Your task to perform on an android device: Do I have any events tomorrow? Image 0: 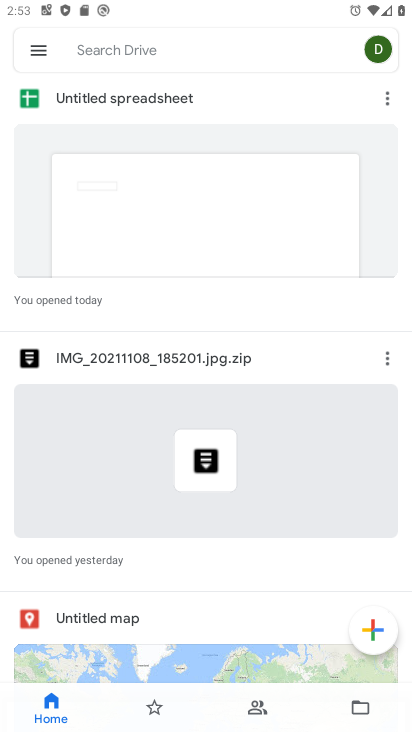
Step 0: press home button
Your task to perform on an android device: Do I have any events tomorrow? Image 1: 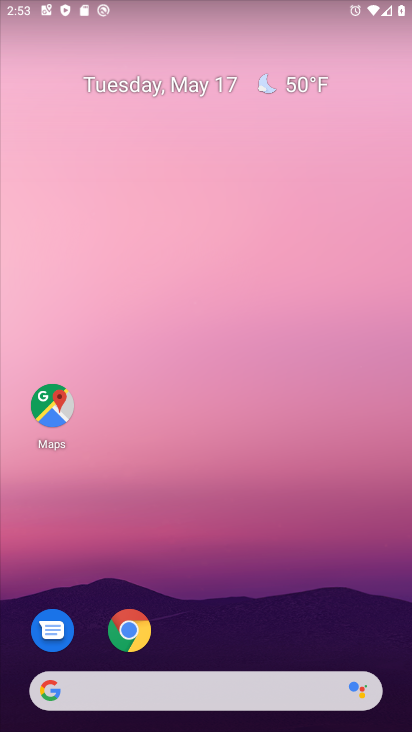
Step 1: drag from (219, 675) to (232, 259)
Your task to perform on an android device: Do I have any events tomorrow? Image 2: 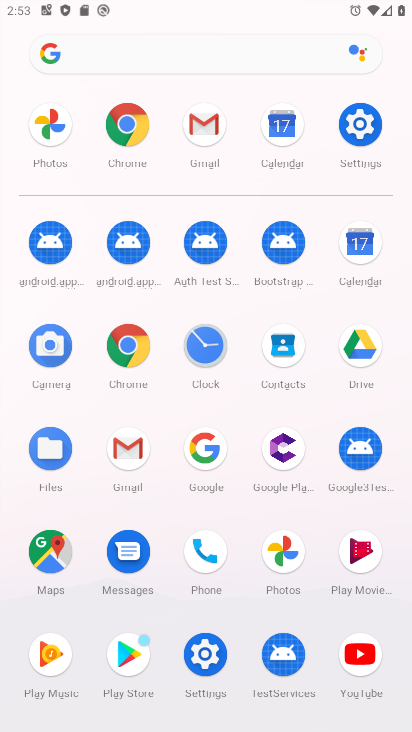
Step 2: click (362, 250)
Your task to perform on an android device: Do I have any events tomorrow? Image 3: 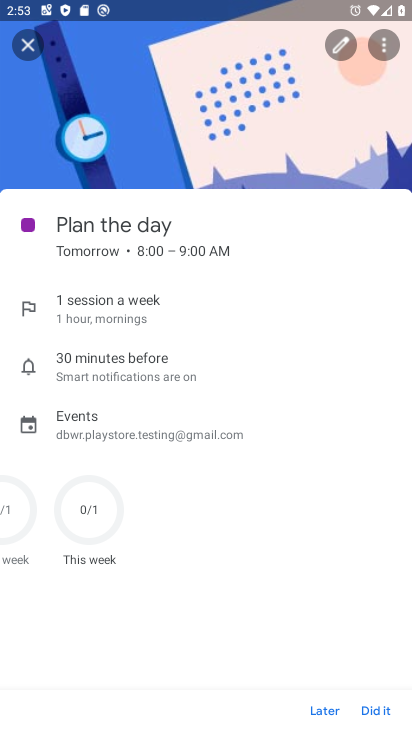
Step 3: task complete